Your task to perform on an android device: check data usage Image 0: 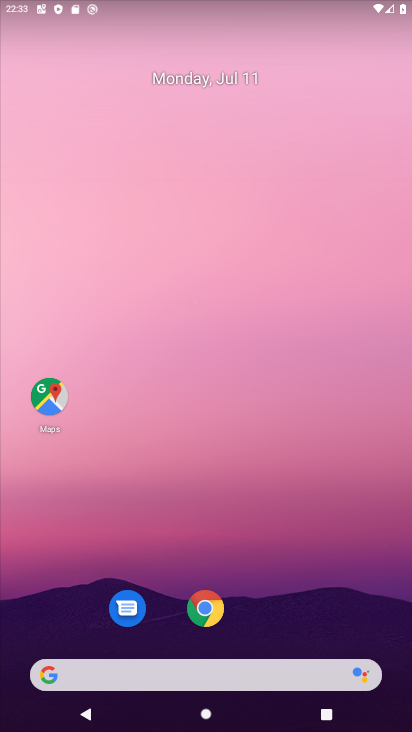
Step 0: drag from (33, 699) to (231, 10)
Your task to perform on an android device: check data usage Image 1: 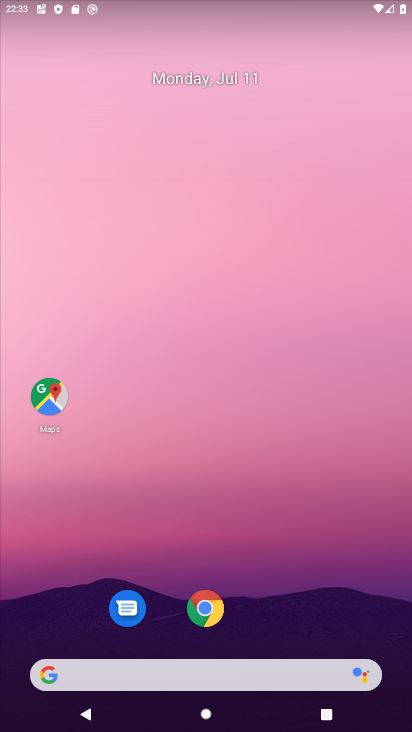
Step 1: drag from (29, 674) to (287, 3)
Your task to perform on an android device: check data usage Image 2: 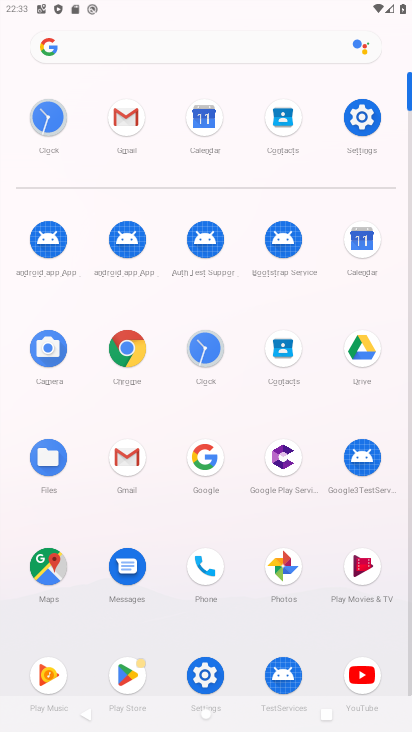
Step 2: click (198, 667)
Your task to perform on an android device: check data usage Image 3: 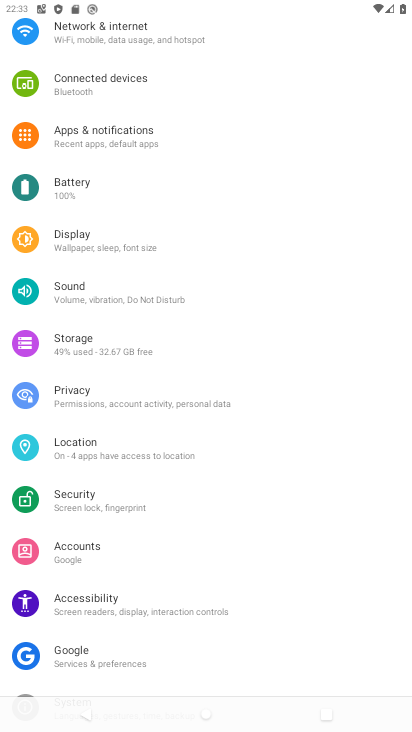
Step 3: click (107, 39)
Your task to perform on an android device: check data usage Image 4: 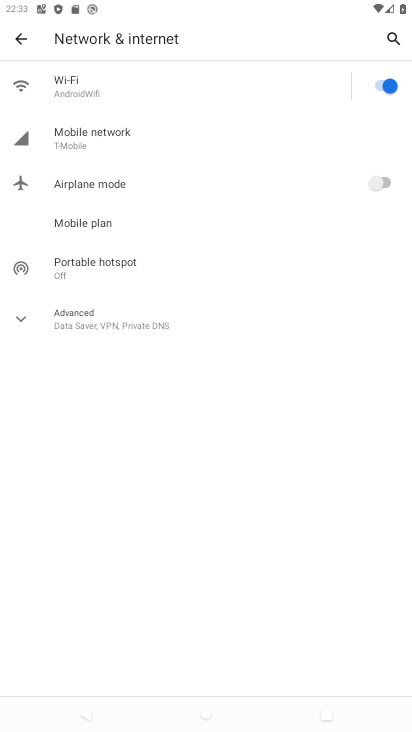
Step 4: click (92, 307)
Your task to perform on an android device: check data usage Image 5: 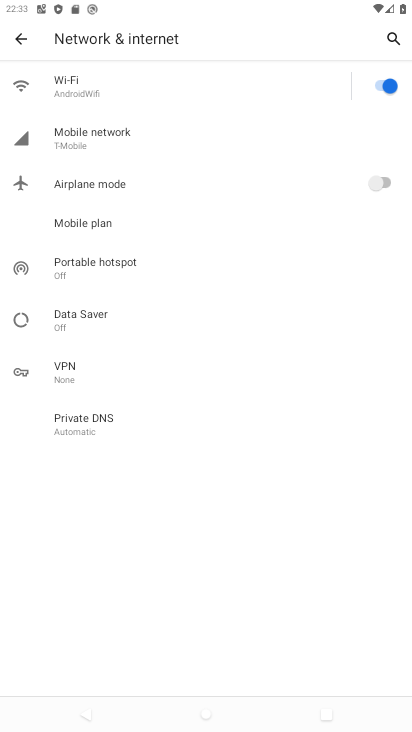
Step 5: click (108, 146)
Your task to perform on an android device: check data usage Image 6: 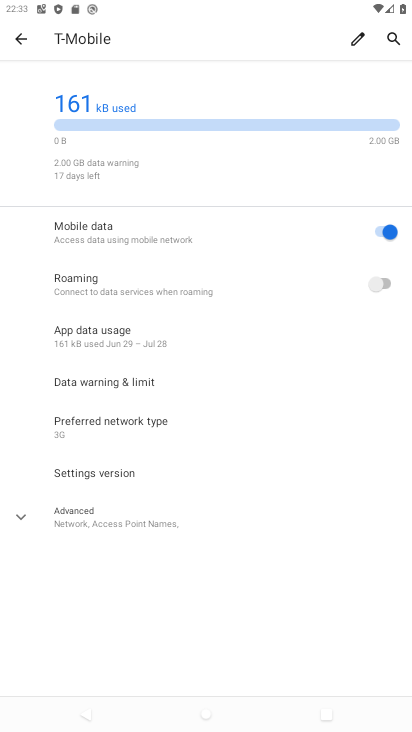
Step 6: task complete